Your task to perform on an android device: toggle notification dots Image 0: 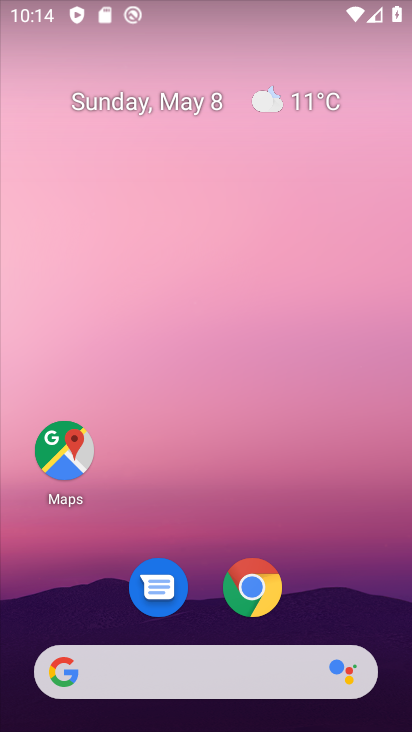
Step 0: drag from (196, 668) to (253, 189)
Your task to perform on an android device: toggle notification dots Image 1: 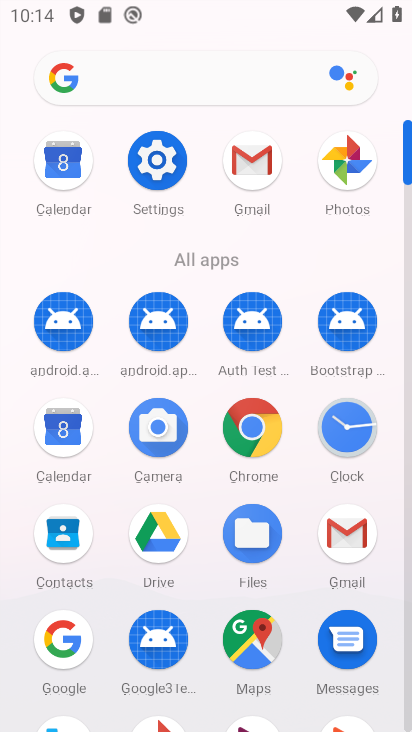
Step 1: click (163, 157)
Your task to perform on an android device: toggle notification dots Image 2: 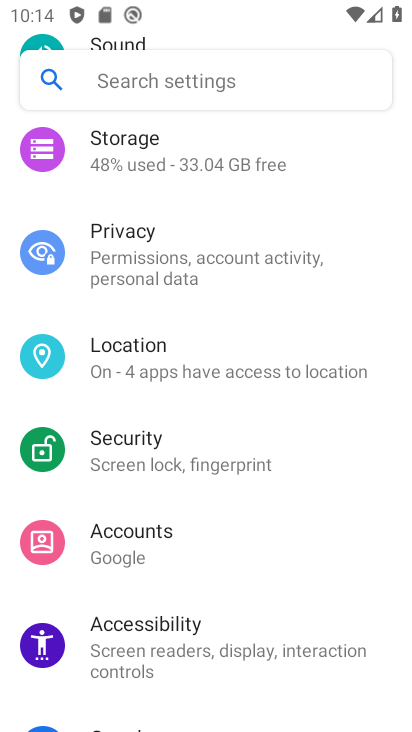
Step 2: drag from (189, 242) to (67, 651)
Your task to perform on an android device: toggle notification dots Image 3: 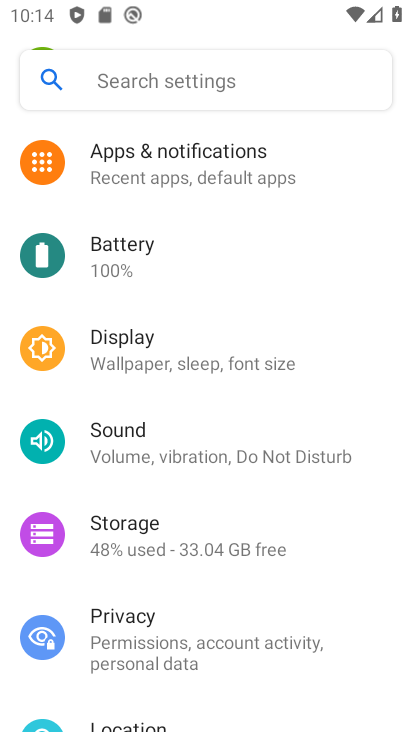
Step 3: click (110, 157)
Your task to perform on an android device: toggle notification dots Image 4: 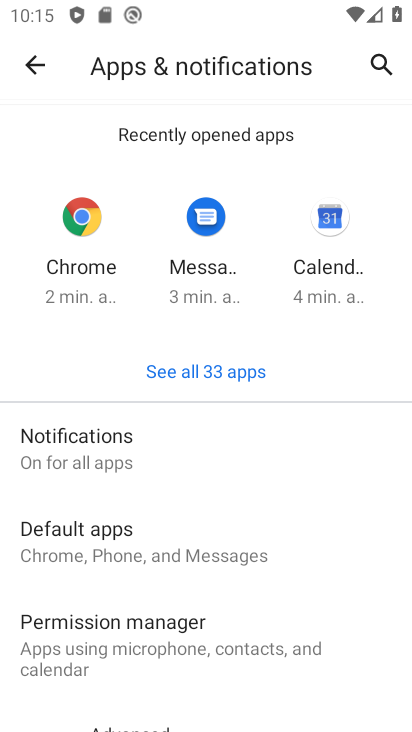
Step 4: click (201, 431)
Your task to perform on an android device: toggle notification dots Image 5: 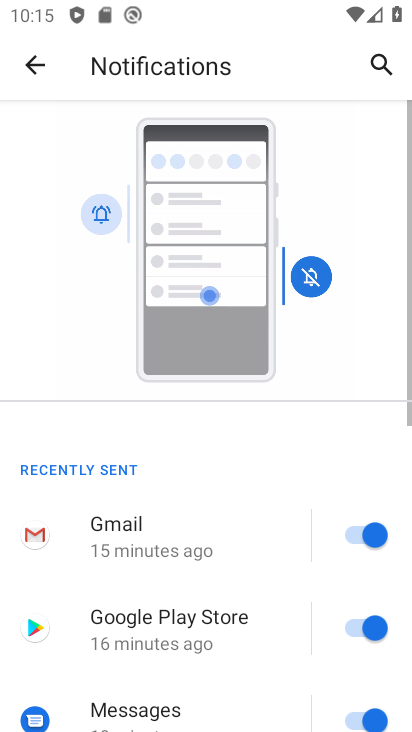
Step 5: drag from (213, 509) to (255, 180)
Your task to perform on an android device: toggle notification dots Image 6: 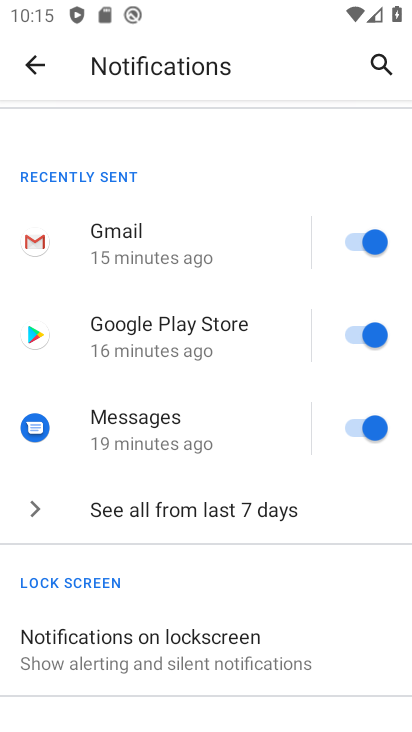
Step 6: drag from (176, 607) to (221, 179)
Your task to perform on an android device: toggle notification dots Image 7: 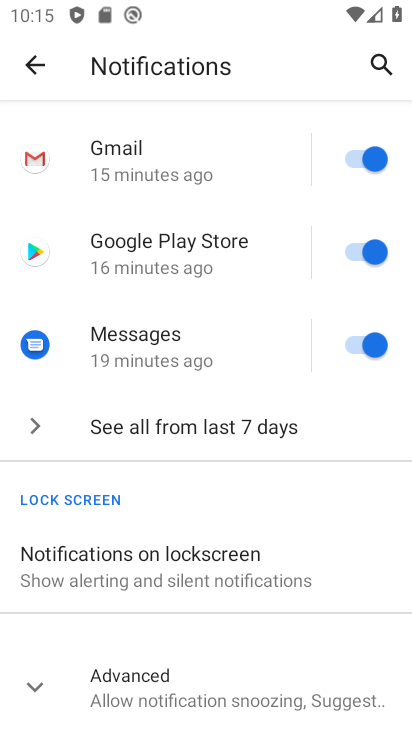
Step 7: click (212, 706)
Your task to perform on an android device: toggle notification dots Image 8: 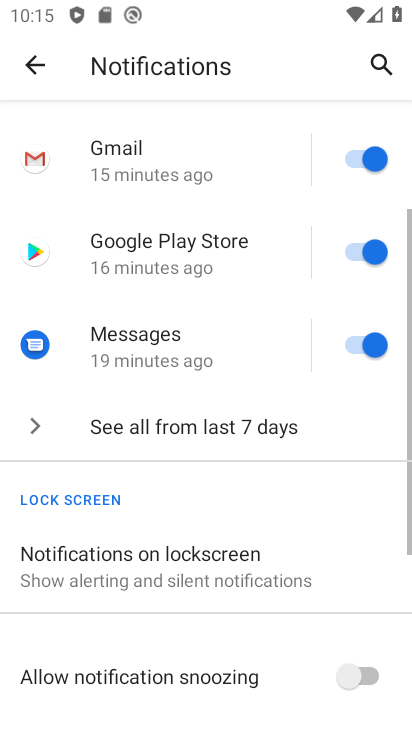
Step 8: drag from (243, 656) to (267, 55)
Your task to perform on an android device: toggle notification dots Image 9: 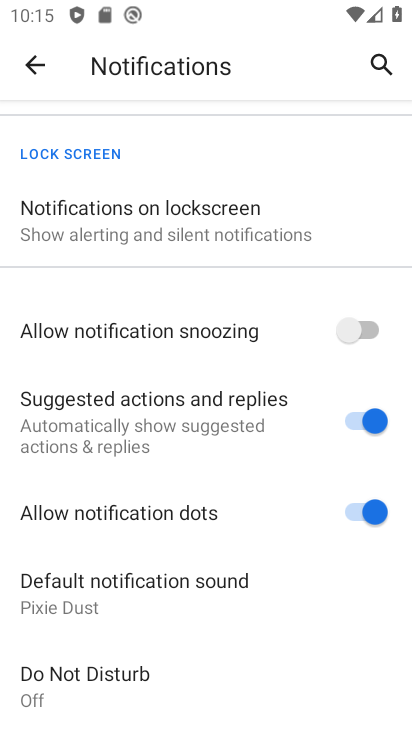
Step 9: click (360, 510)
Your task to perform on an android device: toggle notification dots Image 10: 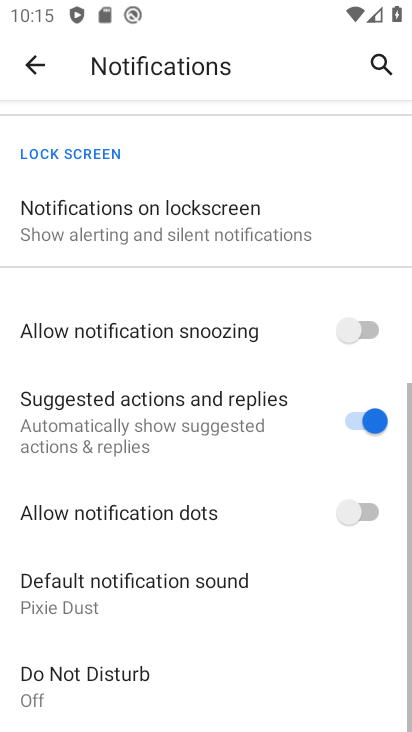
Step 10: task complete